Your task to perform on an android device: uninstall "Etsy: Buy & Sell Unique Items" Image 0: 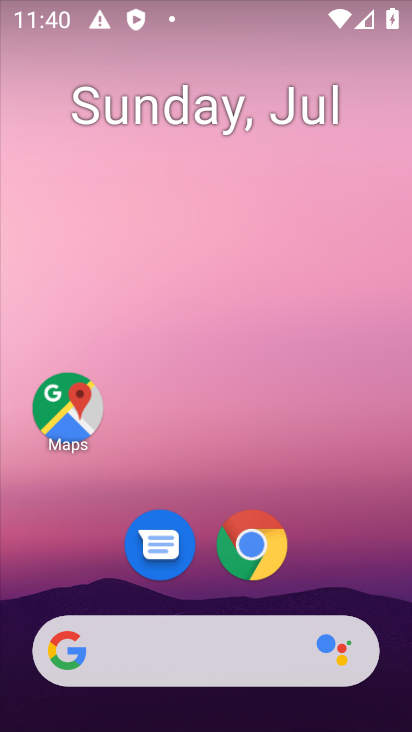
Step 0: drag from (236, 604) to (215, 155)
Your task to perform on an android device: uninstall "Etsy: Buy & Sell Unique Items" Image 1: 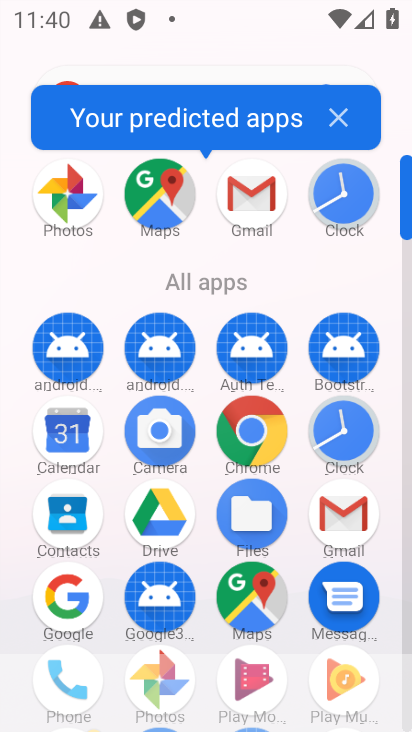
Step 1: drag from (120, 577) to (120, 243)
Your task to perform on an android device: uninstall "Etsy: Buy & Sell Unique Items" Image 2: 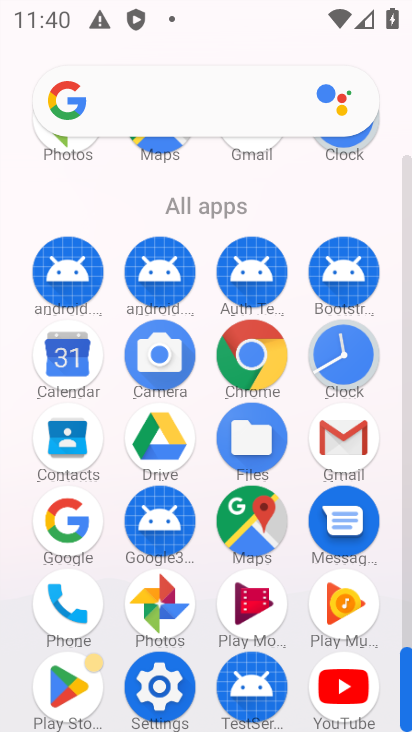
Step 2: click (55, 685)
Your task to perform on an android device: uninstall "Etsy: Buy & Sell Unique Items" Image 3: 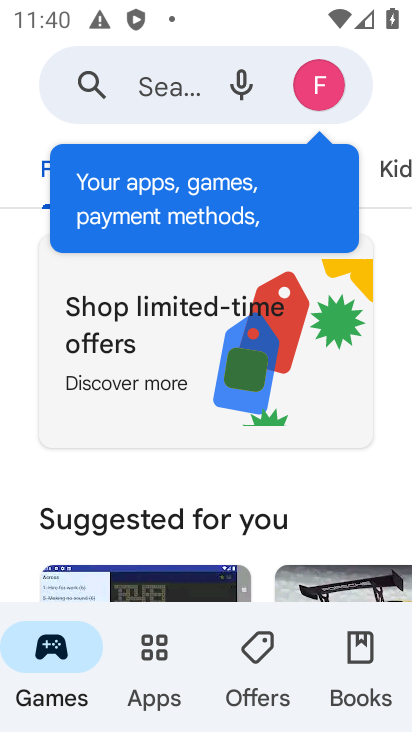
Step 3: type "Etsy: Buy & Sell Unique Items"
Your task to perform on an android device: uninstall "Etsy: Buy & Sell Unique Items" Image 4: 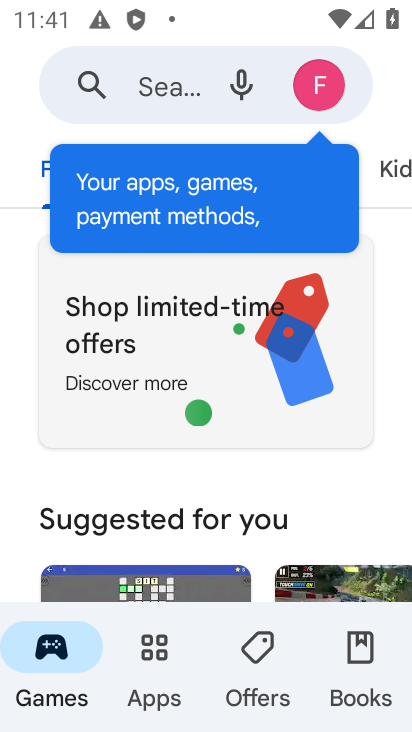
Step 4: click (174, 91)
Your task to perform on an android device: uninstall "Etsy: Buy & Sell Unique Items" Image 5: 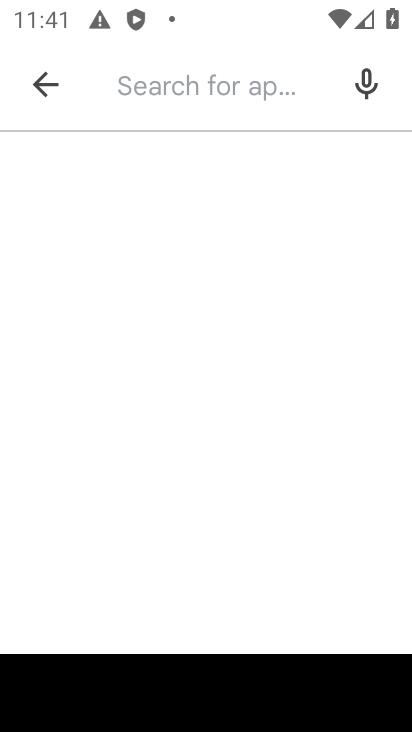
Step 5: type "Etsy: Buy & Sell Unique Items"
Your task to perform on an android device: uninstall "Etsy: Buy & Sell Unique Items" Image 6: 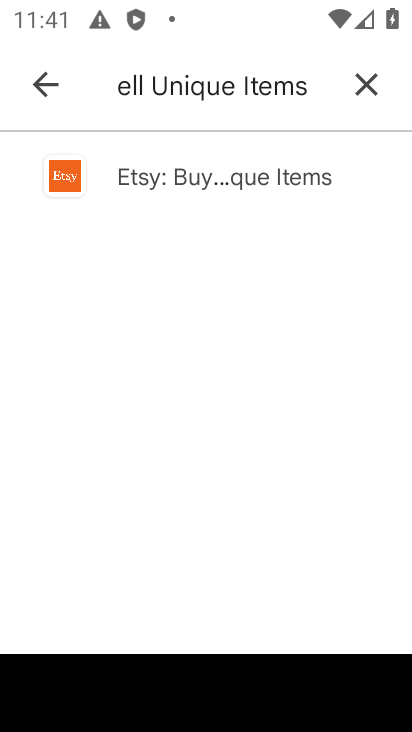
Step 6: click (257, 178)
Your task to perform on an android device: uninstall "Etsy: Buy & Sell Unique Items" Image 7: 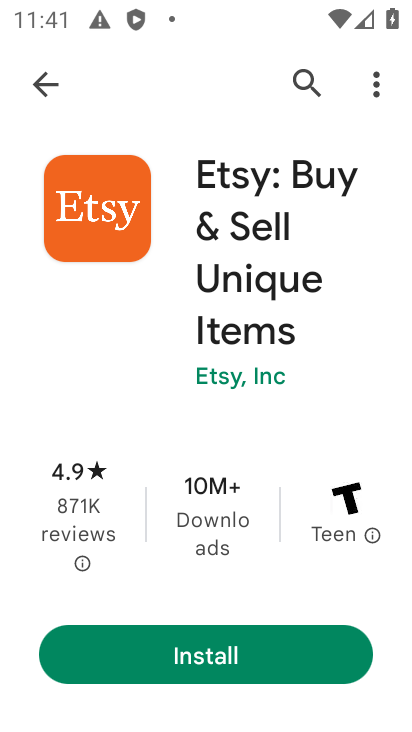
Step 7: task complete